Your task to perform on an android device: star an email in the gmail app Image 0: 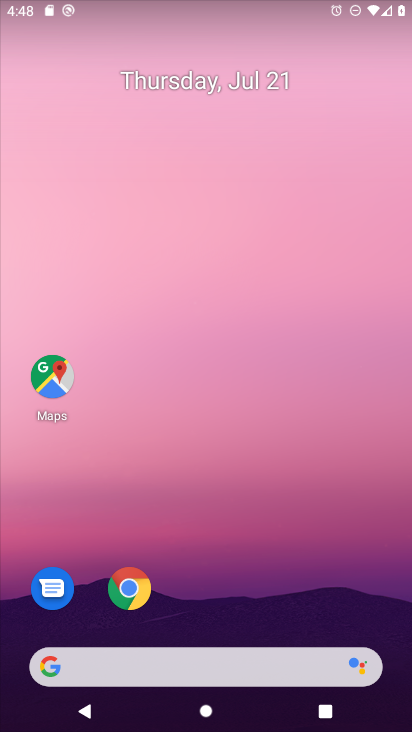
Step 0: drag from (249, 662) to (233, 152)
Your task to perform on an android device: star an email in the gmail app Image 1: 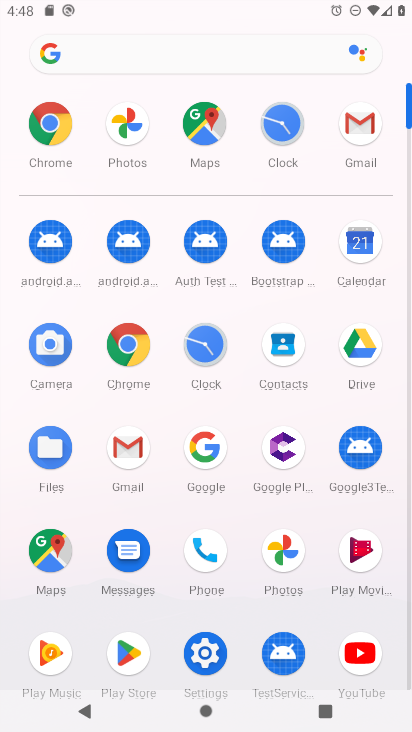
Step 1: click (148, 458)
Your task to perform on an android device: star an email in the gmail app Image 2: 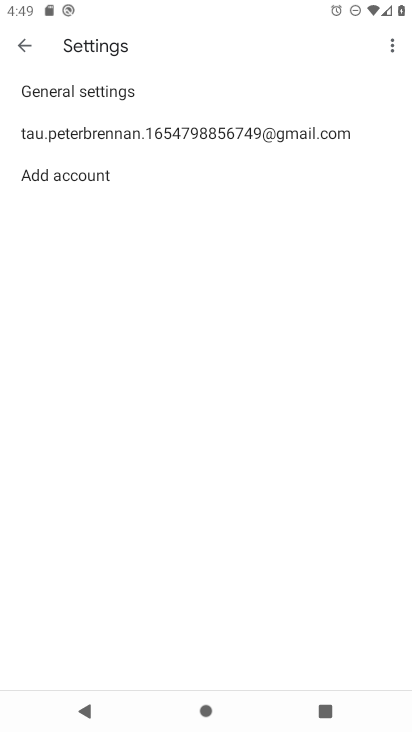
Step 2: click (35, 46)
Your task to perform on an android device: star an email in the gmail app Image 3: 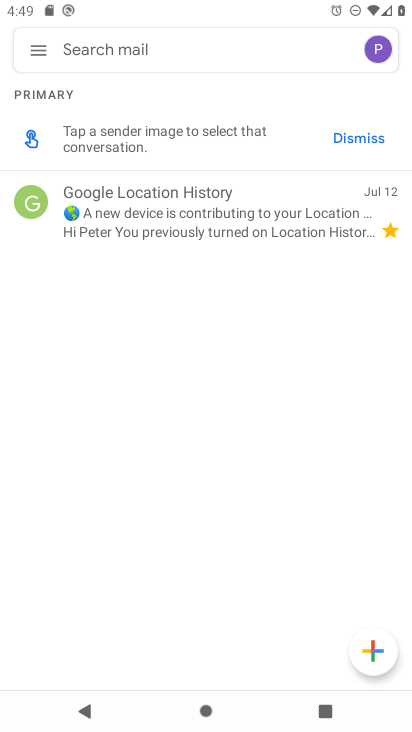
Step 3: click (44, 59)
Your task to perform on an android device: star an email in the gmail app Image 4: 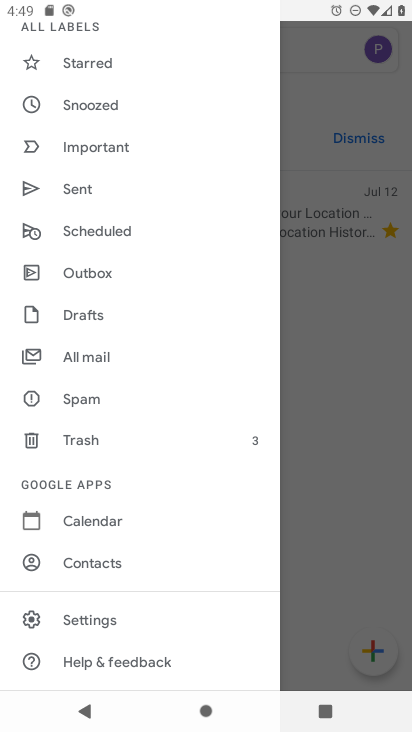
Step 4: click (117, 364)
Your task to perform on an android device: star an email in the gmail app Image 5: 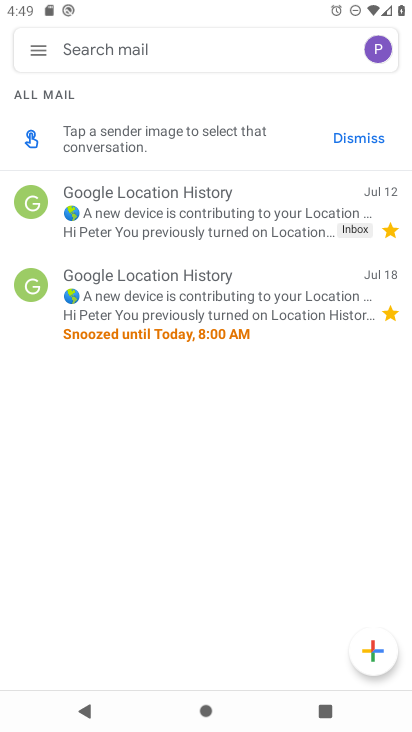
Step 5: task complete